Your task to perform on an android device: Open the stopwatch Image 0: 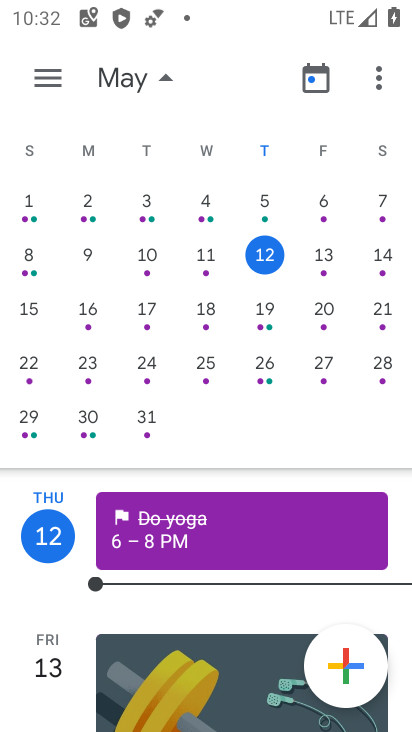
Step 0: press home button
Your task to perform on an android device: Open the stopwatch Image 1: 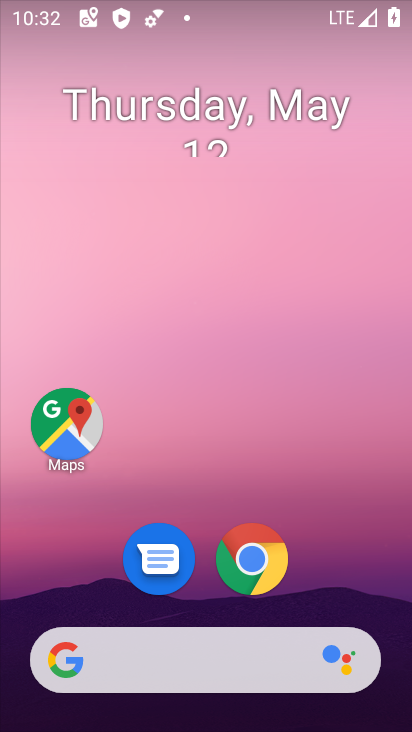
Step 1: drag from (197, 602) to (194, 195)
Your task to perform on an android device: Open the stopwatch Image 2: 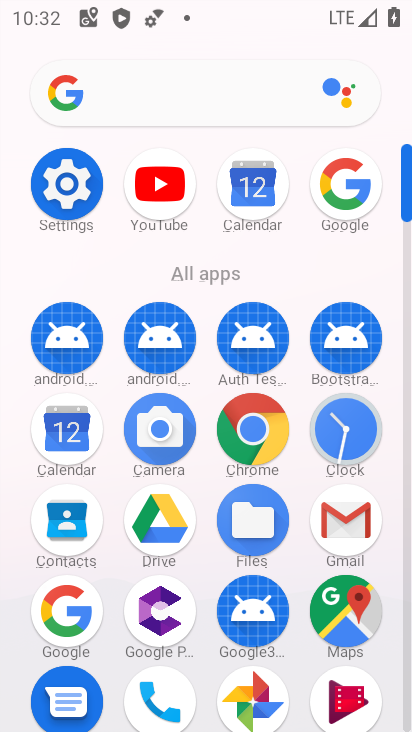
Step 2: click (326, 414)
Your task to perform on an android device: Open the stopwatch Image 3: 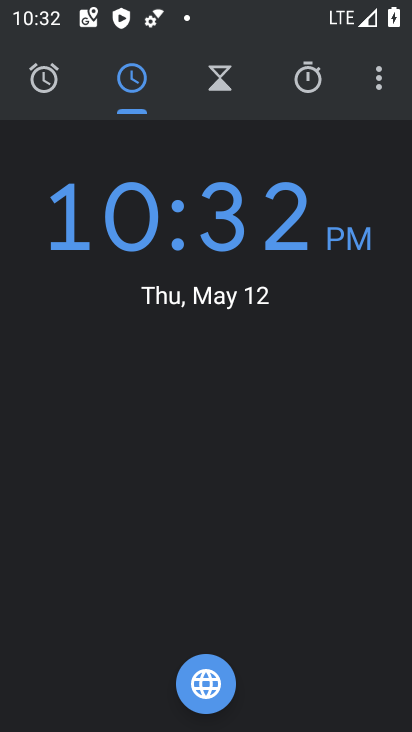
Step 3: click (299, 89)
Your task to perform on an android device: Open the stopwatch Image 4: 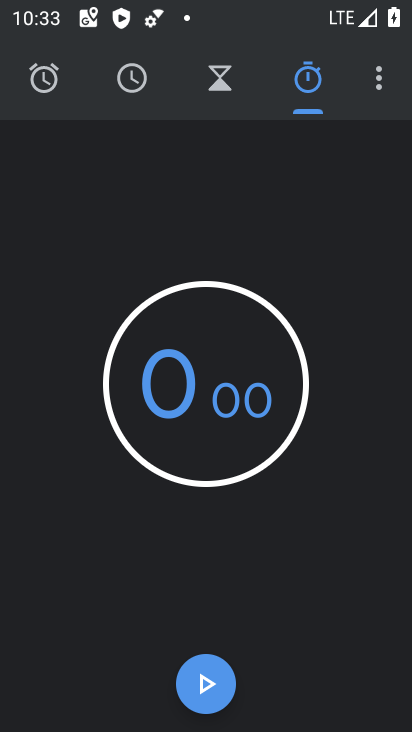
Step 4: task complete